Your task to perform on an android device: Open wifi settings Image 0: 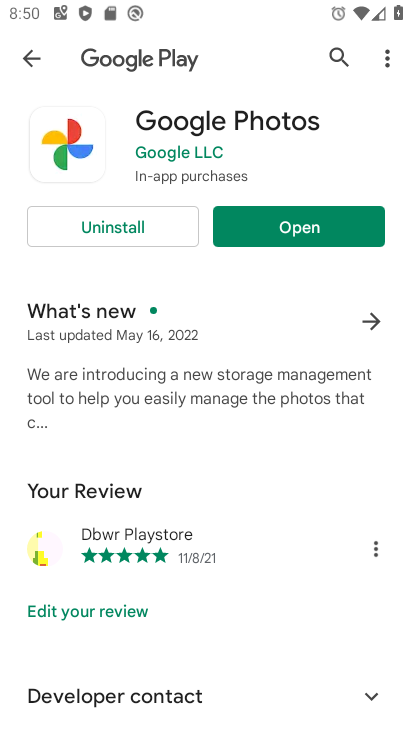
Step 0: press home button
Your task to perform on an android device: Open wifi settings Image 1: 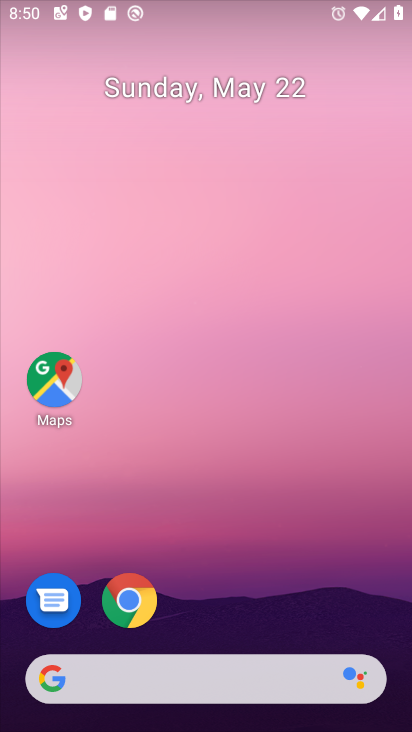
Step 1: drag from (297, 653) to (268, 250)
Your task to perform on an android device: Open wifi settings Image 2: 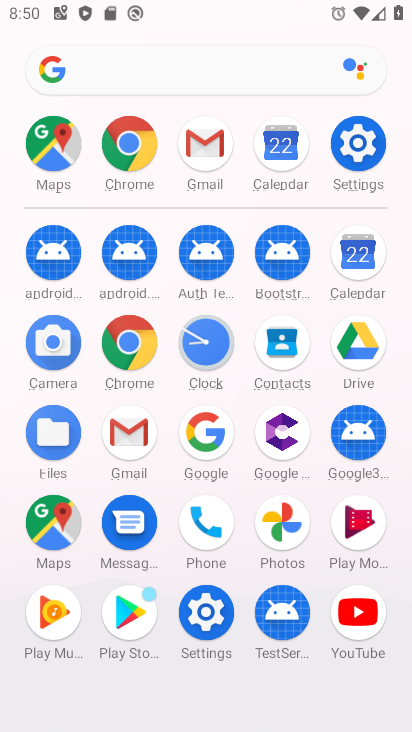
Step 2: click (353, 160)
Your task to perform on an android device: Open wifi settings Image 3: 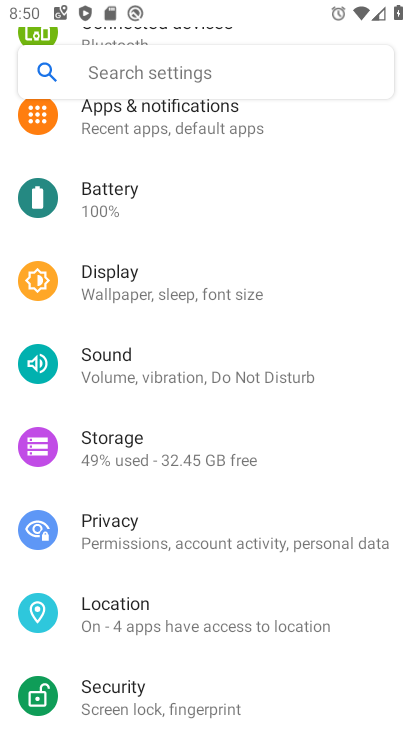
Step 3: drag from (329, 161) to (297, 437)
Your task to perform on an android device: Open wifi settings Image 4: 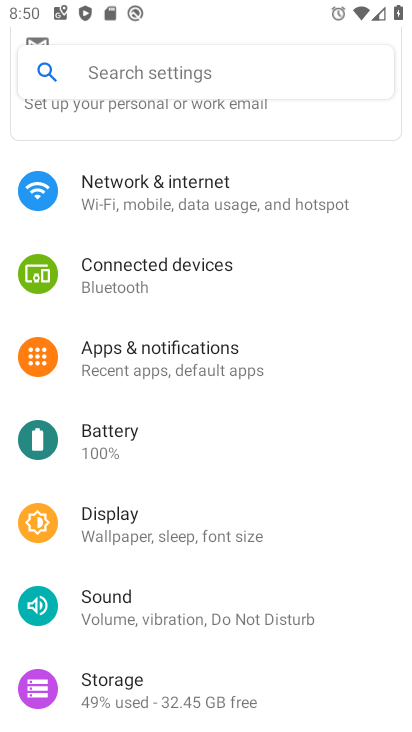
Step 4: click (257, 185)
Your task to perform on an android device: Open wifi settings Image 5: 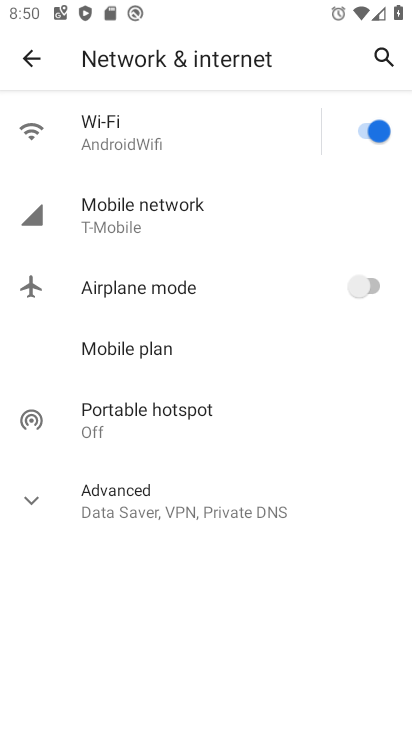
Step 5: click (201, 147)
Your task to perform on an android device: Open wifi settings Image 6: 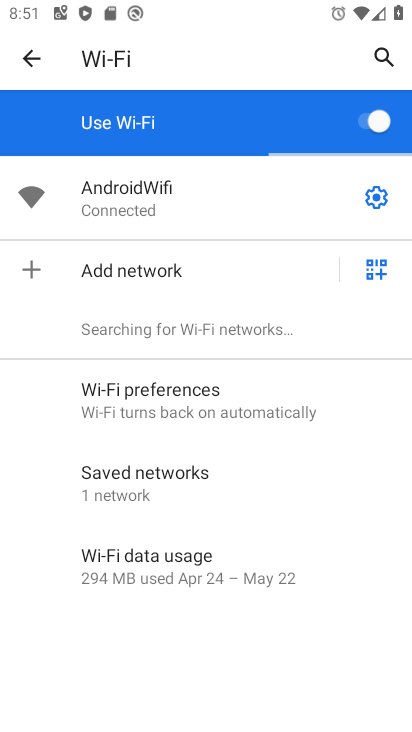
Step 6: task complete